Your task to perform on an android device: turn vacation reply on in the gmail app Image 0: 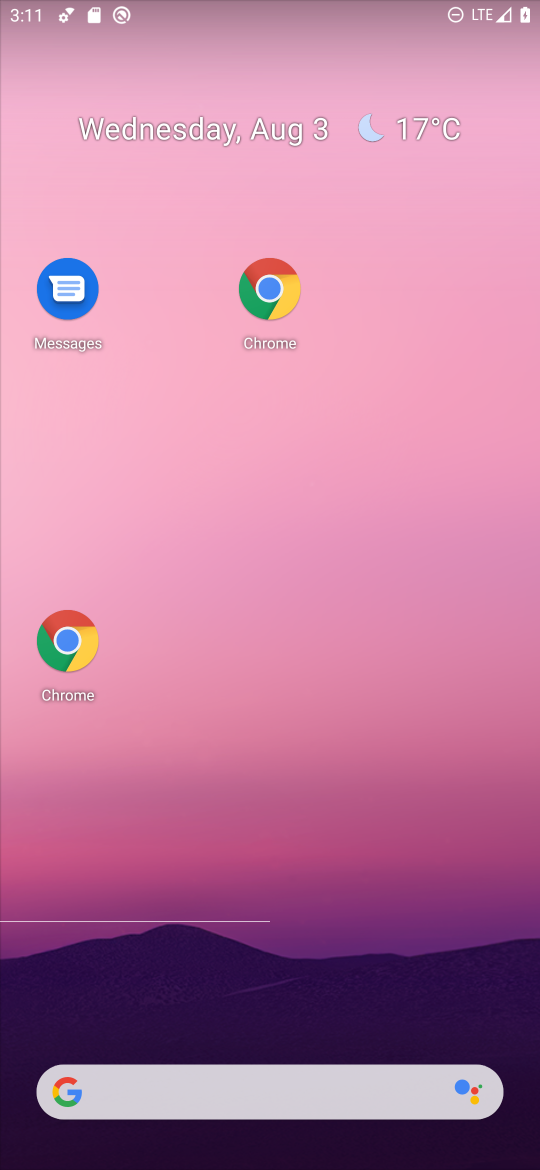
Step 0: drag from (412, 1017) to (401, 114)
Your task to perform on an android device: turn vacation reply on in the gmail app Image 1: 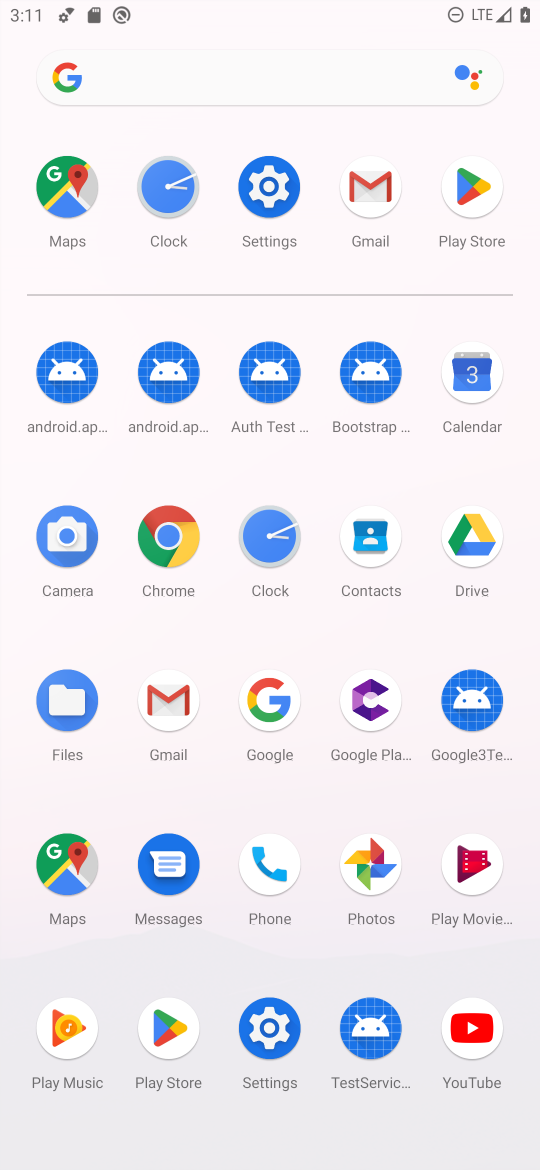
Step 1: click (391, 207)
Your task to perform on an android device: turn vacation reply on in the gmail app Image 2: 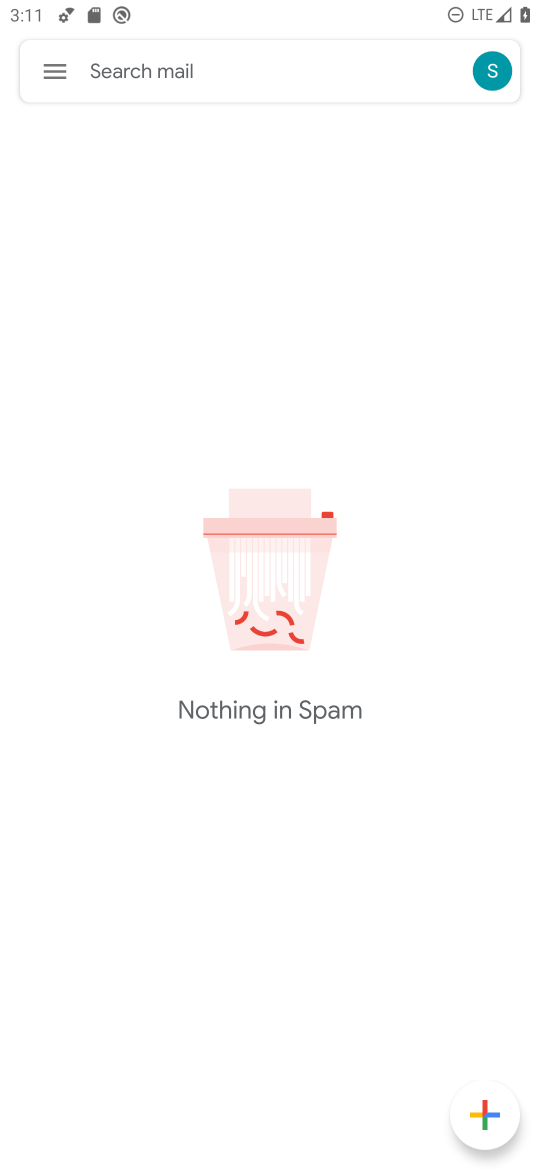
Step 2: click (47, 85)
Your task to perform on an android device: turn vacation reply on in the gmail app Image 3: 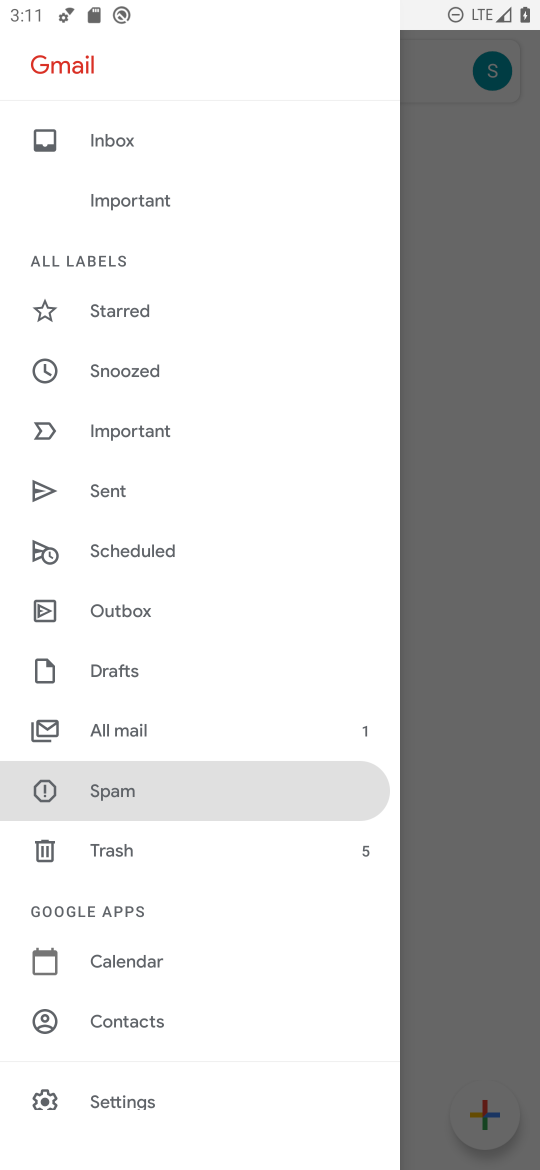
Step 3: click (99, 1091)
Your task to perform on an android device: turn vacation reply on in the gmail app Image 4: 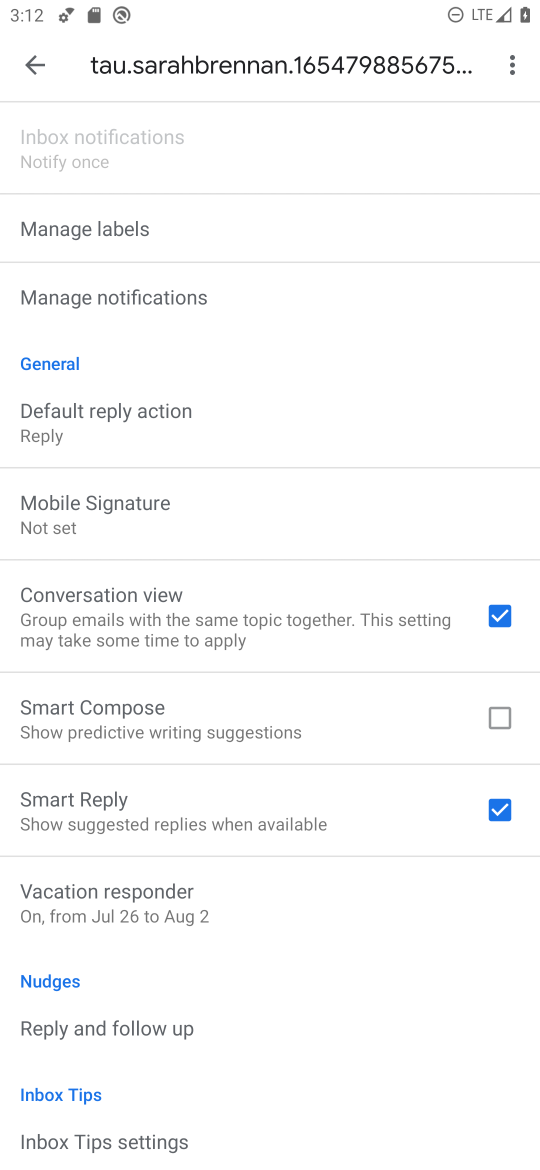
Step 4: click (244, 896)
Your task to perform on an android device: turn vacation reply on in the gmail app Image 5: 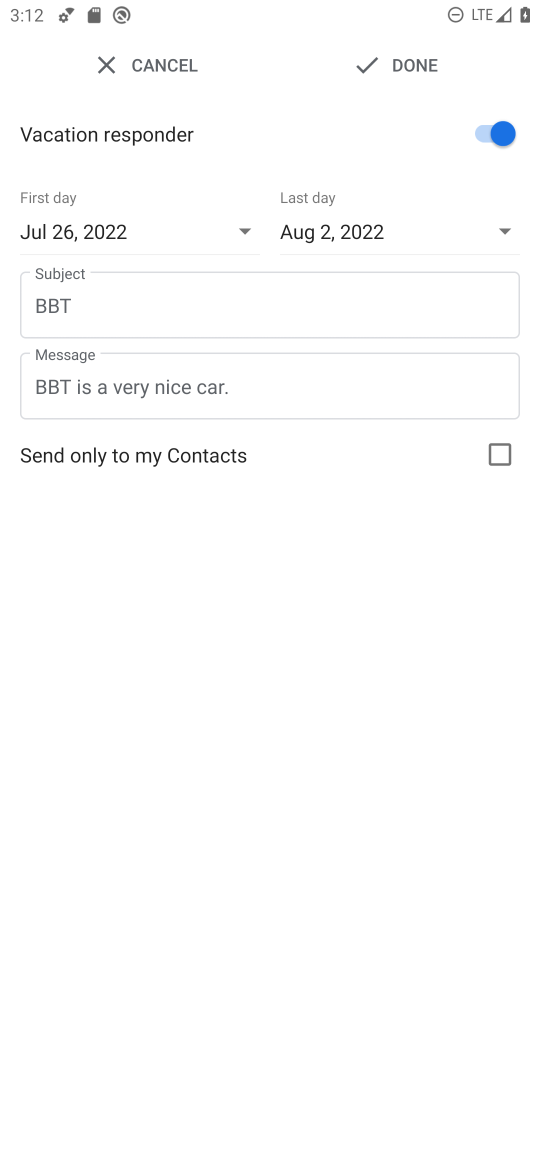
Step 5: click (431, 88)
Your task to perform on an android device: turn vacation reply on in the gmail app Image 6: 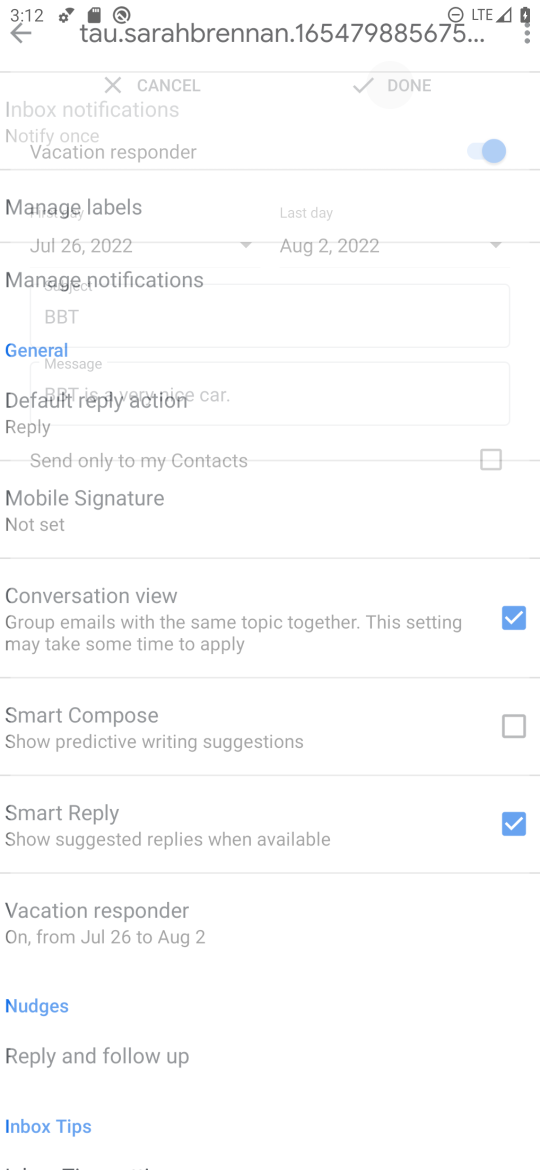
Step 6: task complete